Your task to perform on an android device: clear history in the chrome app Image 0: 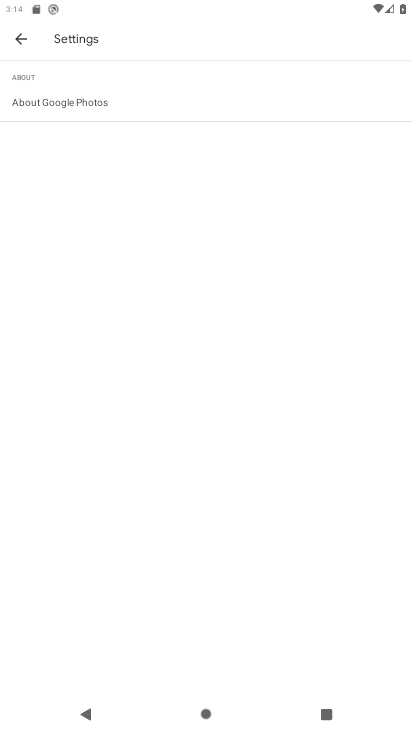
Step 0: press back button
Your task to perform on an android device: clear history in the chrome app Image 1: 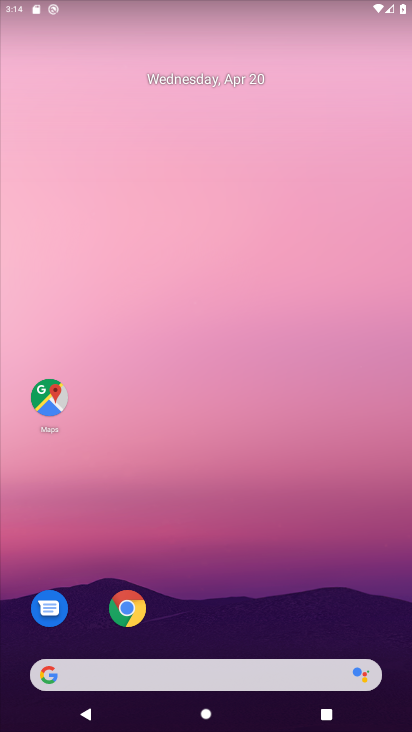
Step 1: click (126, 620)
Your task to perform on an android device: clear history in the chrome app Image 2: 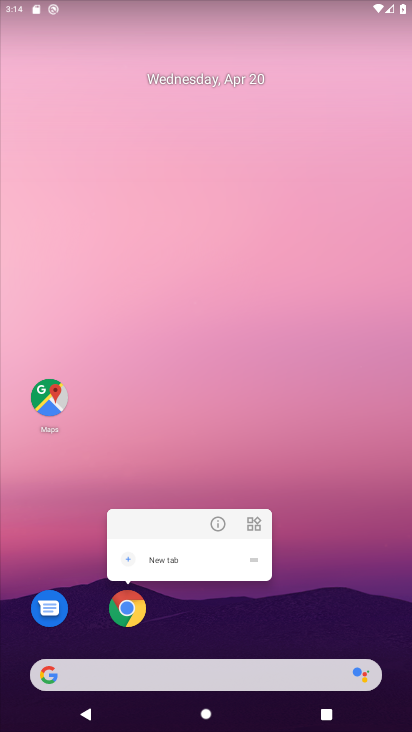
Step 2: click (132, 601)
Your task to perform on an android device: clear history in the chrome app Image 3: 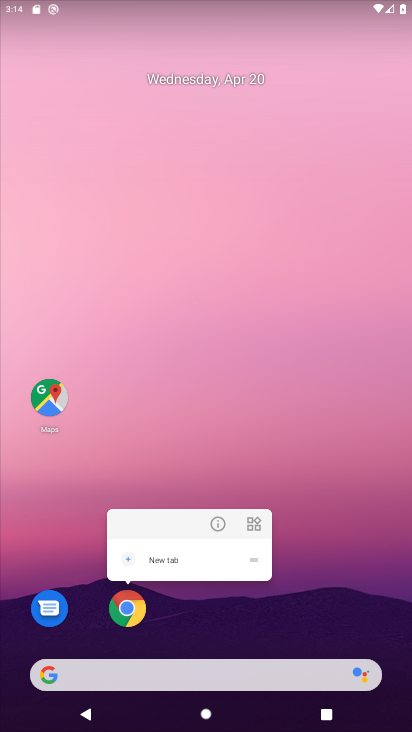
Step 3: click (124, 613)
Your task to perform on an android device: clear history in the chrome app Image 4: 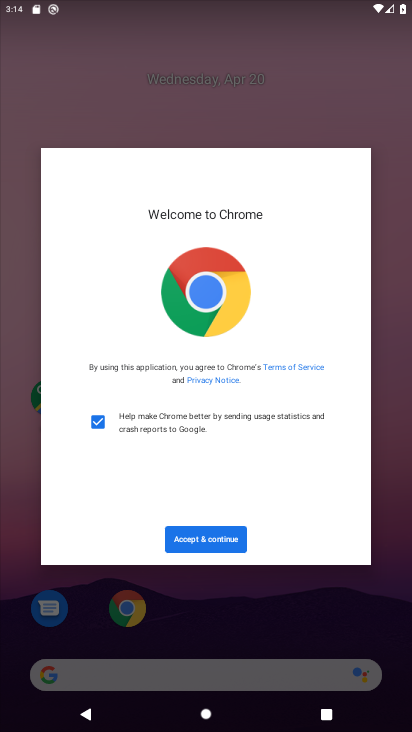
Step 4: click (229, 534)
Your task to perform on an android device: clear history in the chrome app Image 5: 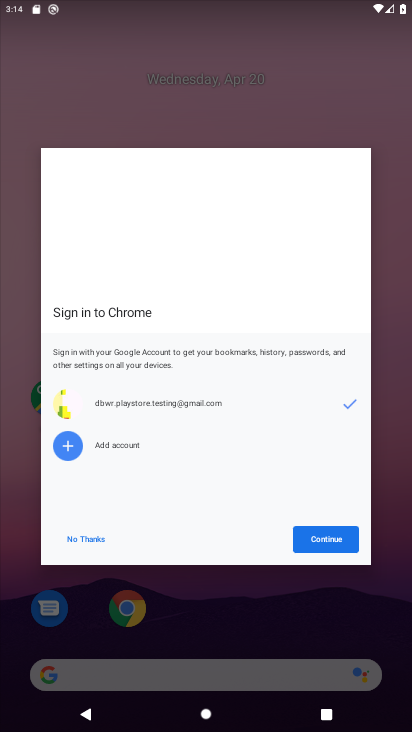
Step 5: click (332, 540)
Your task to perform on an android device: clear history in the chrome app Image 6: 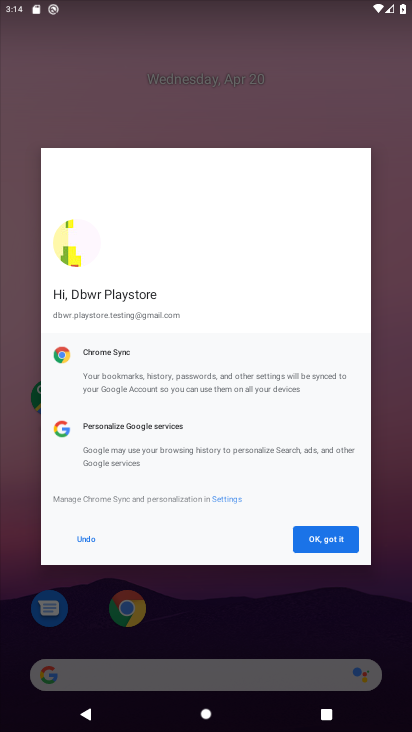
Step 6: click (345, 546)
Your task to perform on an android device: clear history in the chrome app Image 7: 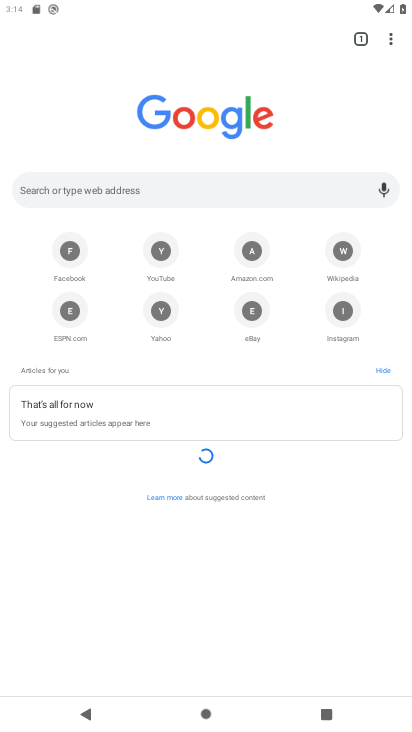
Step 7: task complete